Your task to perform on an android device: Go to settings Image 0: 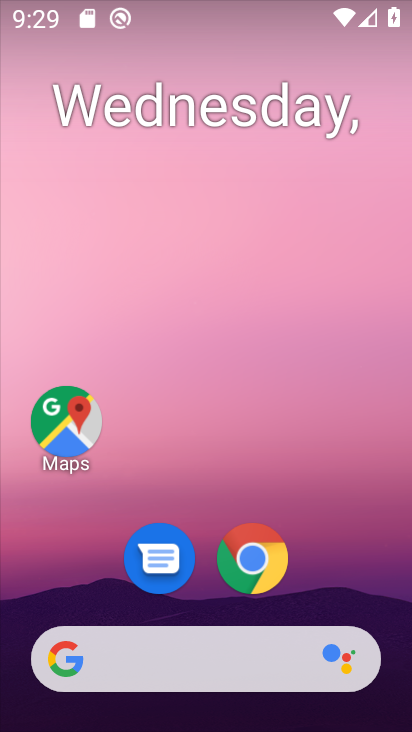
Step 0: drag from (356, 542) to (362, 74)
Your task to perform on an android device: Go to settings Image 1: 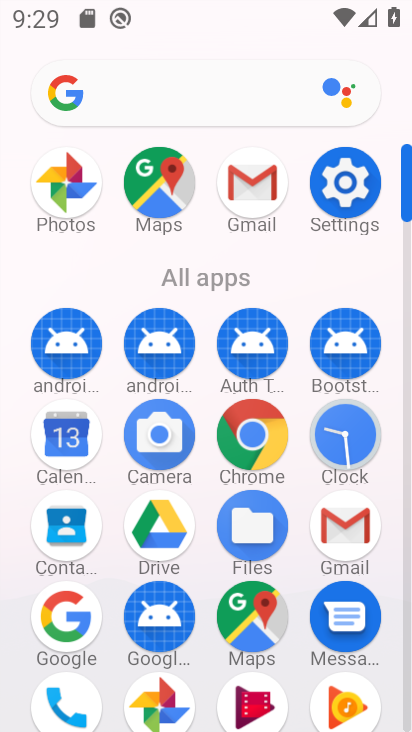
Step 1: click (356, 185)
Your task to perform on an android device: Go to settings Image 2: 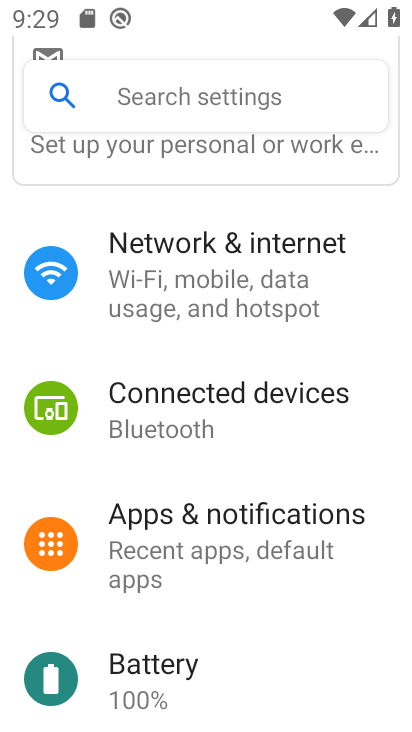
Step 2: task complete